Your task to perform on an android device: Open Yahoo.com Image 0: 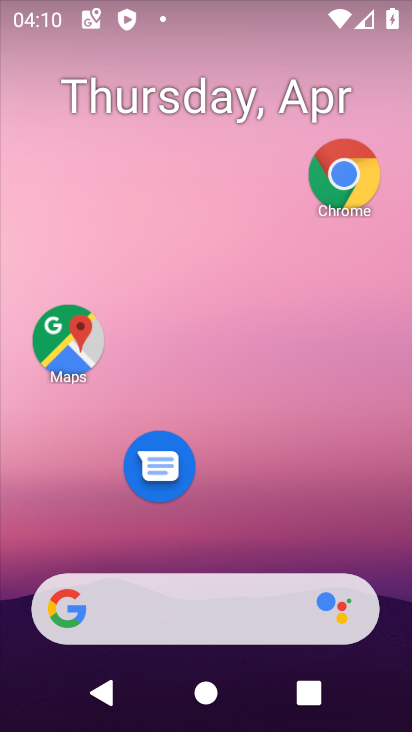
Step 0: click (329, 171)
Your task to perform on an android device: Open Yahoo.com Image 1: 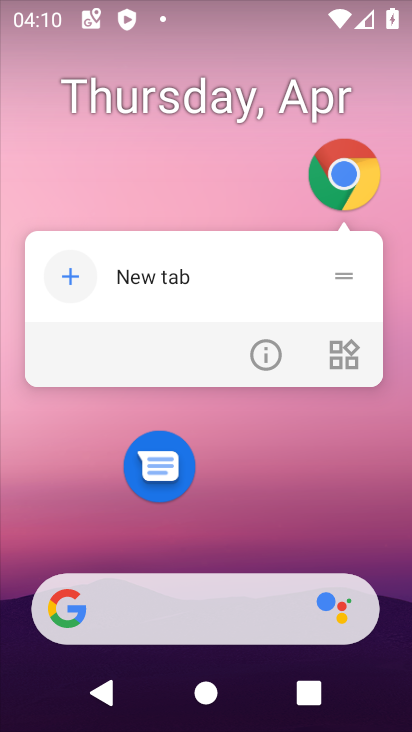
Step 1: click (359, 167)
Your task to perform on an android device: Open Yahoo.com Image 2: 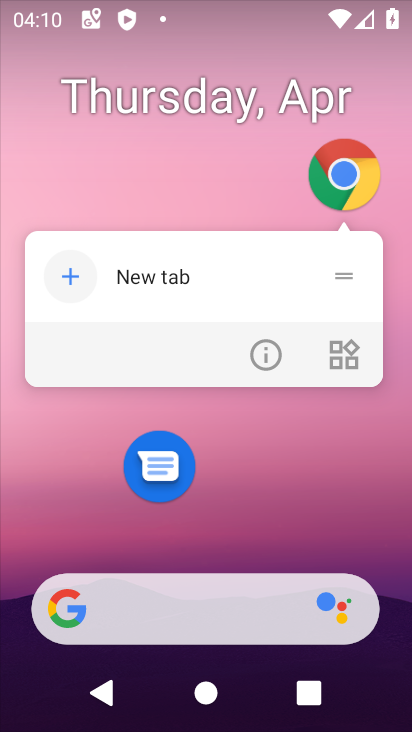
Step 2: click (359, 167)
Your task to perform on an android device: Open Yahoo.com Image 3: 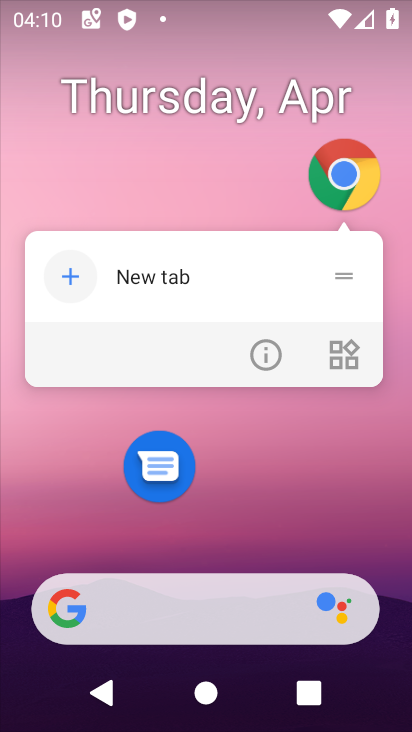
Step 3: click (346, 180)
Your task to perform on an android device: Open Yahoo.com Image 4: 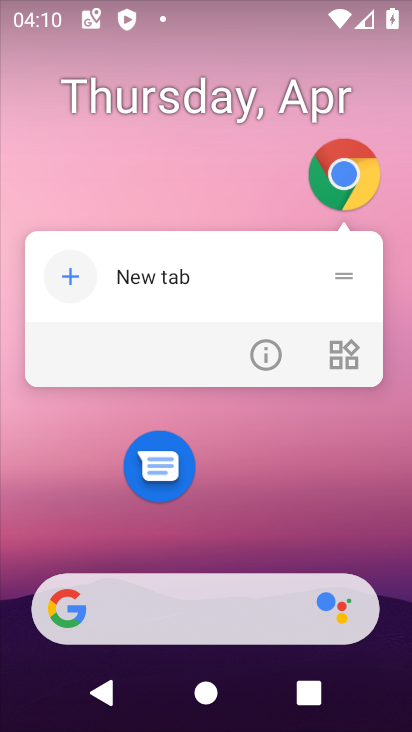
Step 4: click (346, 179)
Your task to perform on an android device: Open Yahoo.com Image 5: 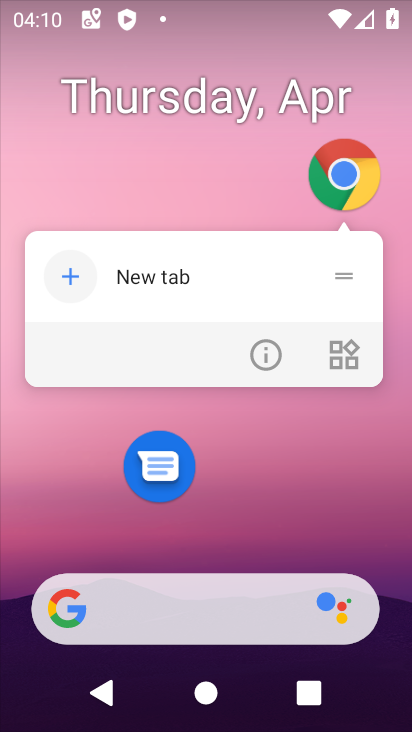
Step 5: click (349, 181)
Your task to perform on an android device: Open Yahoo.com Image 6: 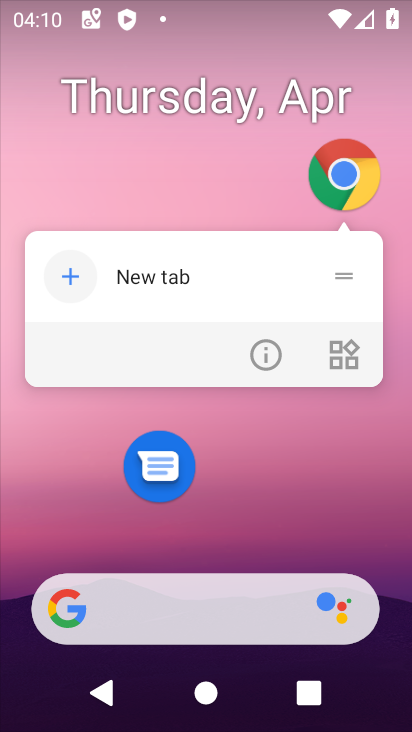
Step 6: click (343, 157)
Your task to perform on an android device: Open Yahoo.com Image 7: 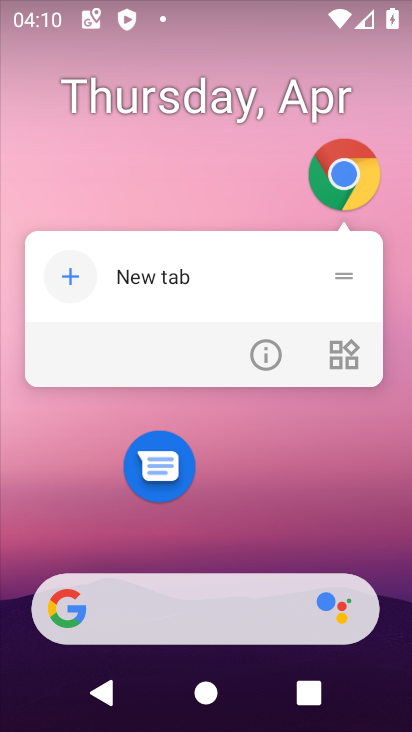
Step 7: click (347, 161)
Your task to perform on an android device: Open Yahoo.com Image 8: 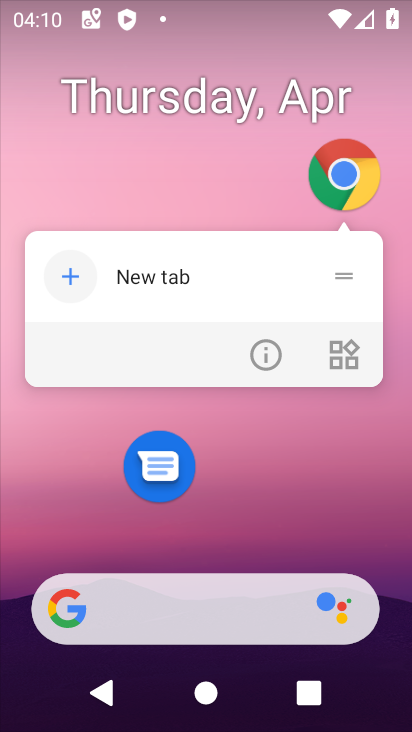
Step 8: click (346, 176)
Your task to perform on an android device: Open Yahoo.com Image 9: 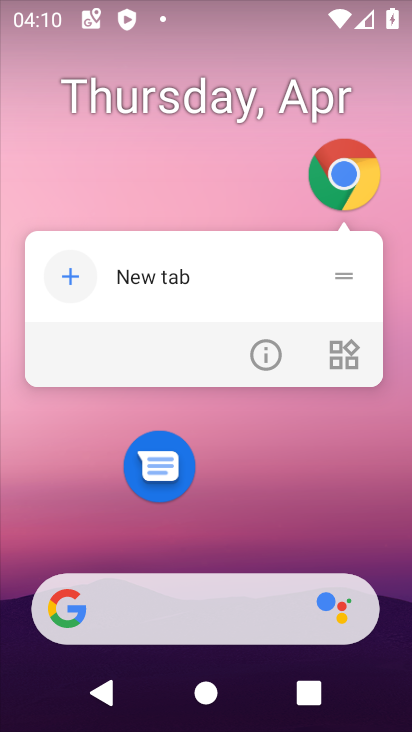
Step 9: click (348, 193)
Your task to perform on an android device: Open Yahoo.com Image 10: 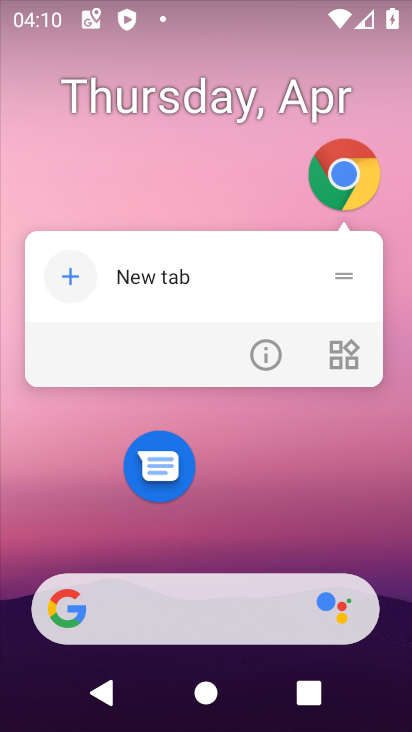
Step 10: click (367, 173)
Your task to perform on an android device: Open Yahoo.com Image 11: 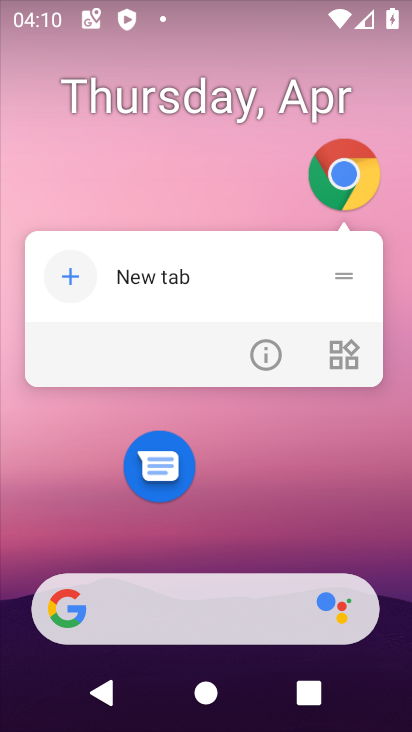
Step 11: click (368, 170)
Your task to perform on an android device: Open Yahoo.com Image 12: 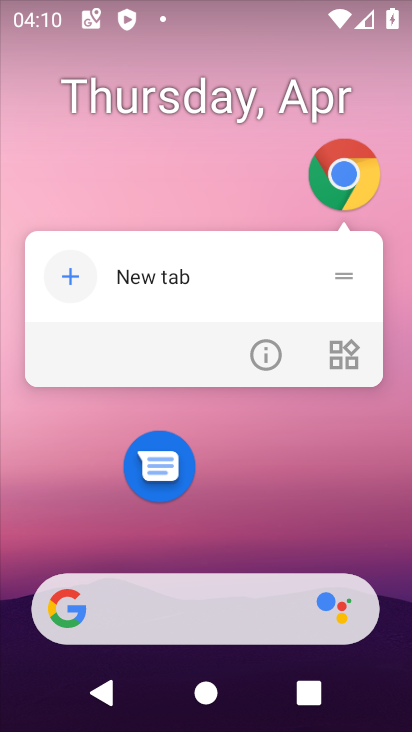
Step 12: click (367, 169)
Your task to perform on an android device: Open Yahoo.com Image 13: 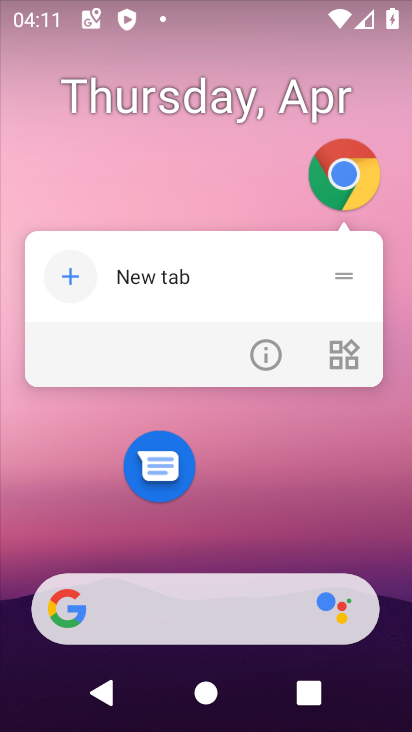
Step 13: click (360, 175)
Your task to perform on an android device: Open Yahoo.com Image 14: 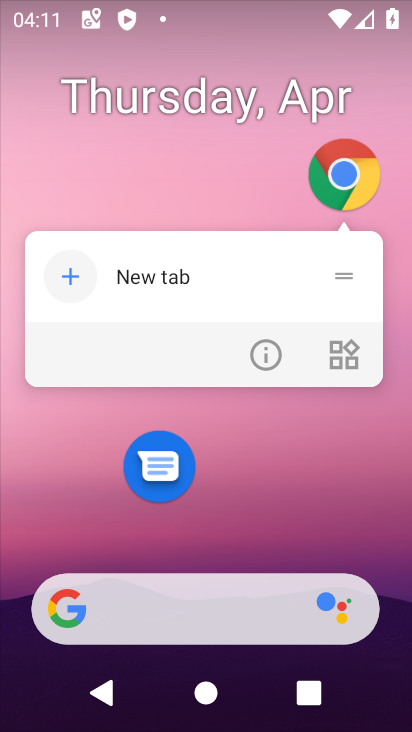
Step 14: click (353, 160)
Your task to perform on an android device: Open Yahoo.com Image 15: 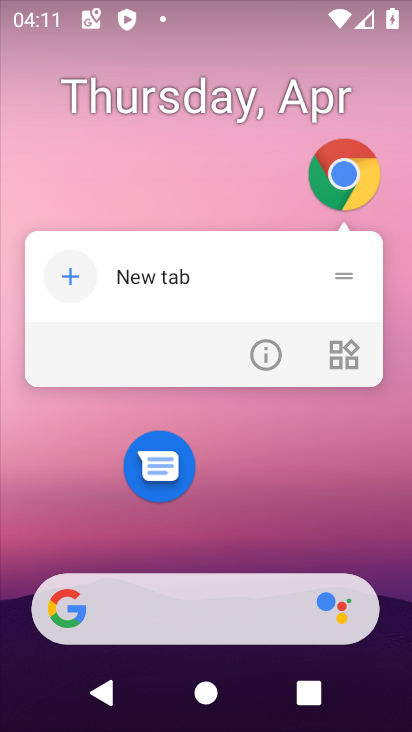
Step 15: click (351, 153)
Your task to perform on an android device: Open Yahoo.com Image 16: 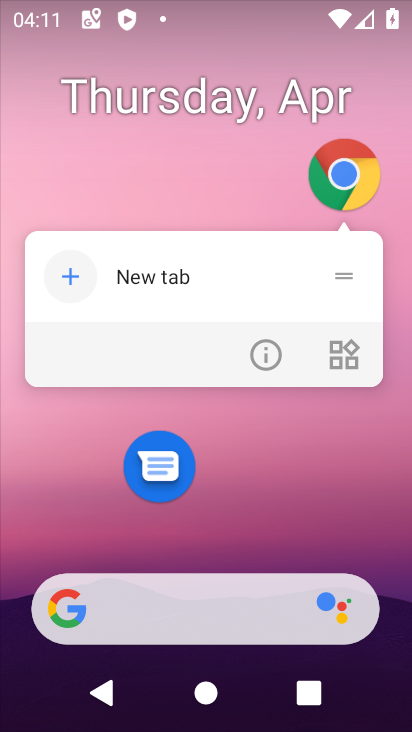
Step 16: click (337, 177)
Your task to perform on an android device: Open Yahoo.com Image 17: 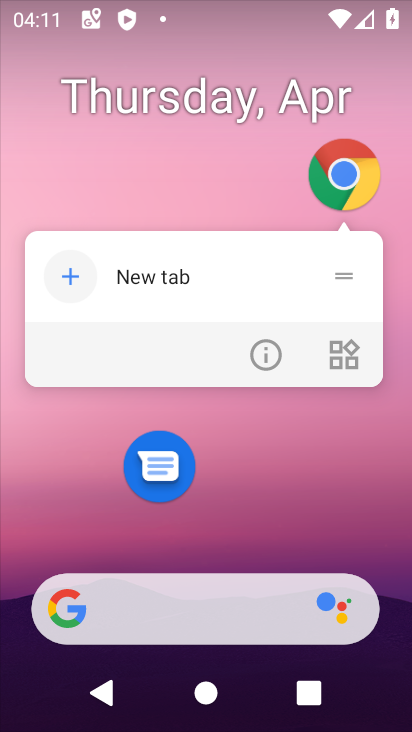
Step 17: click (373, 178)
Your task to perform on an android device: Open Yahoo.com Image 18: 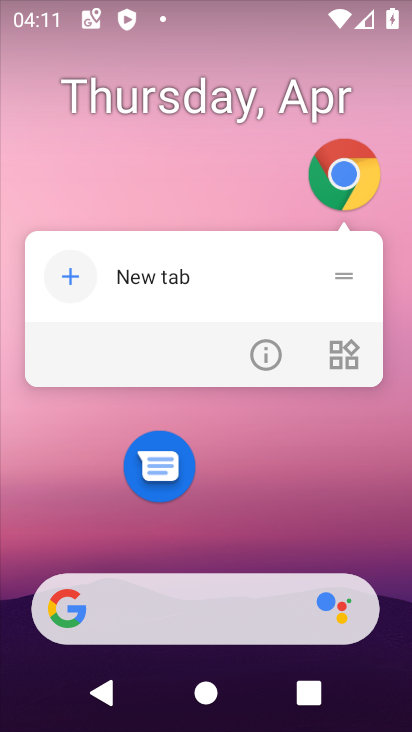
Step 18: click (368, 170)
Your task to perform on an android device: Open Yahoo.com Image 19: 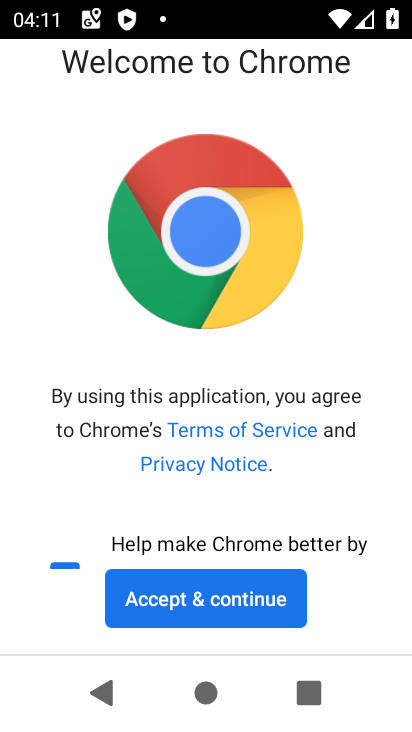
Step 19: click (230, 597)
Your task to perform on an android device: Open Yahoo.com Image 20: 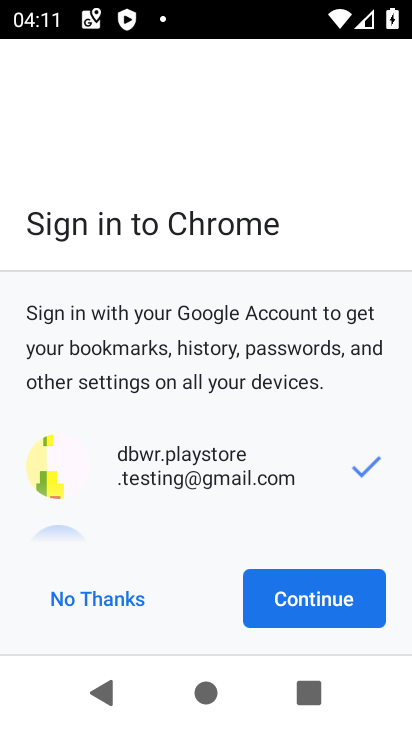
Step 20: click (340, 611)
Your task to perform on an android device: Open Yahoo.com Image 21: 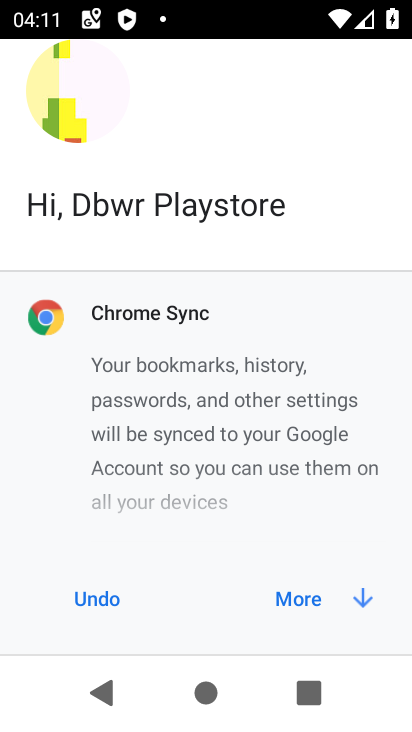
Step 21: click (341, 610)
Your task to perform on an android device: Open Yahoo.com Image 22: 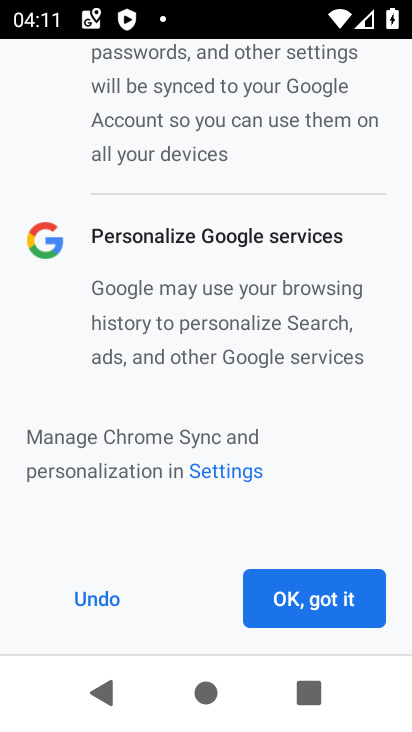
Step 22: click (332, 602)
Your task to perform on an android device: Open Yahoo.com Image 23: 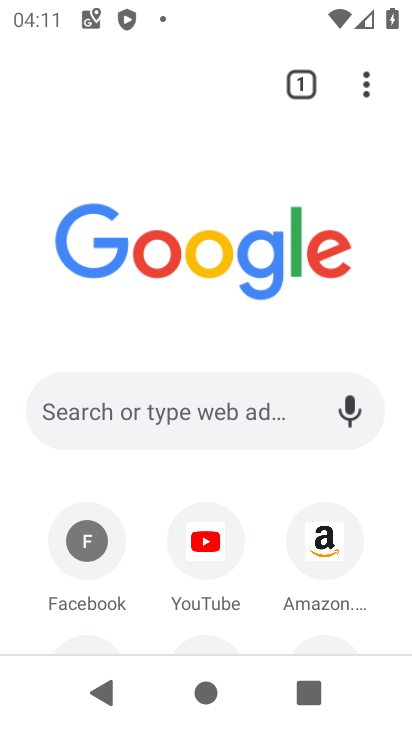
Step 23: drag from (188, 570) to (304, 311)
Your task to perform on an android device: Open Yahoo.com Image 24: 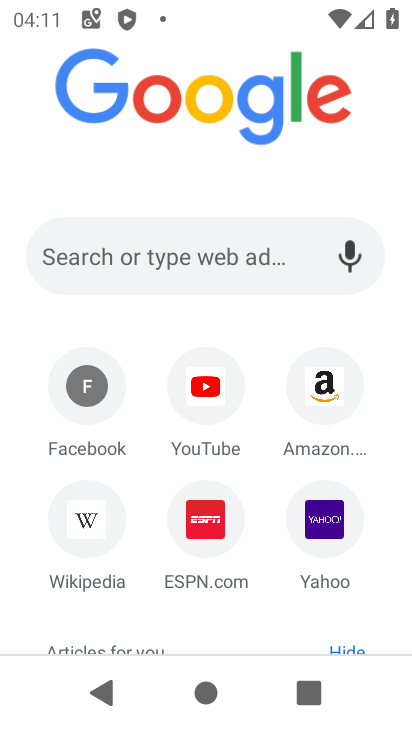
Step 24: click (329, 518)
Your task to perform on an android device: Open Yahoo.com Image 25: 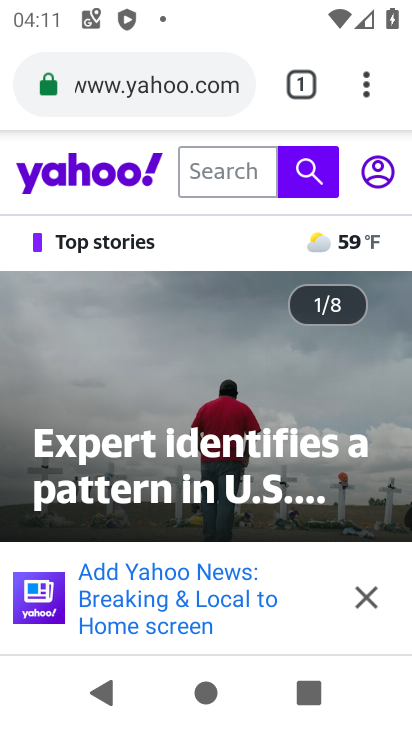
Step 25: task complete